Your task to perform on an android device: toggle translation in the chrome app Image 0: 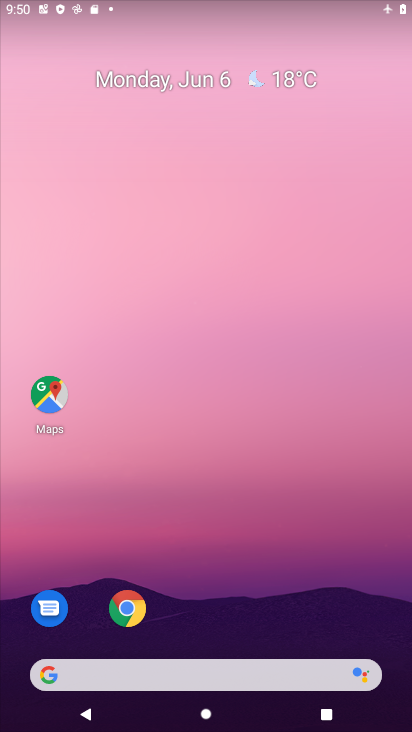
Step 0: click (129, 610)
Your task to perform on an android device: toggle translation in the chrome app Image 1: 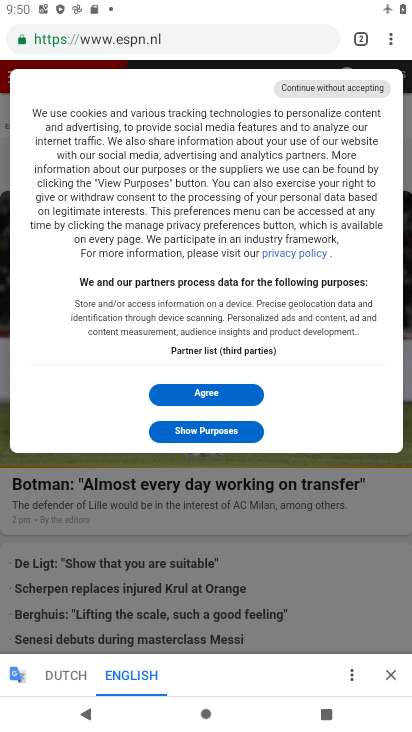
Step 1: click (391, 40)
Your task to perform on an android device: toggle translation in the chrome app Image 2: 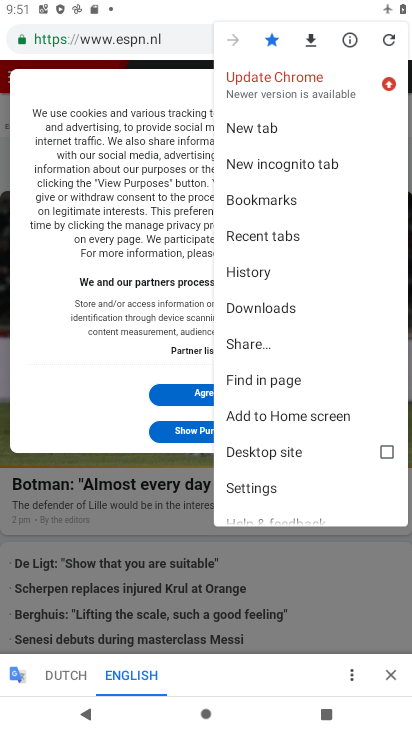
Step 2: click (260, 487)
Your task to perform on an android device: toggle translation in the chrome app Image 3: 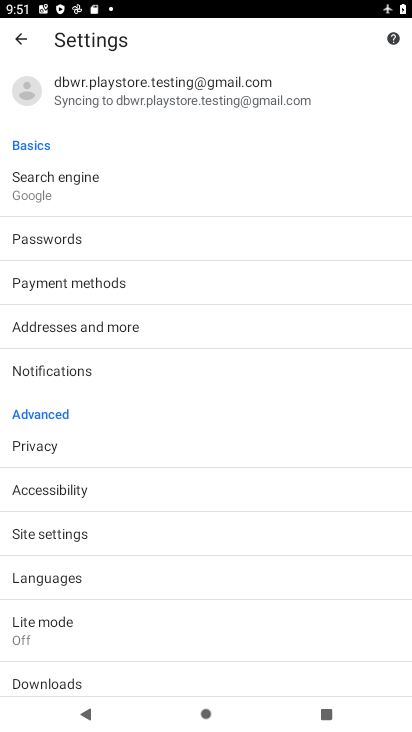
Step 3: click (60, 582)
Your task to perform on an android device: toggle translation in the chrome app Image 4: 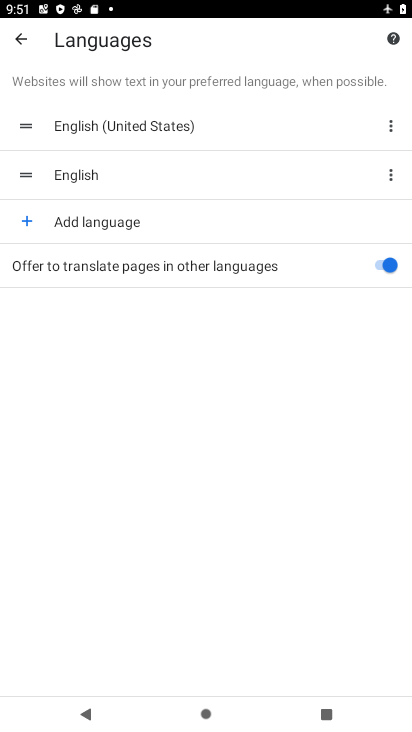
Step 4: click (374, 267)
Your task to perform on an android device: toggle translation in the chrome app Image 5: 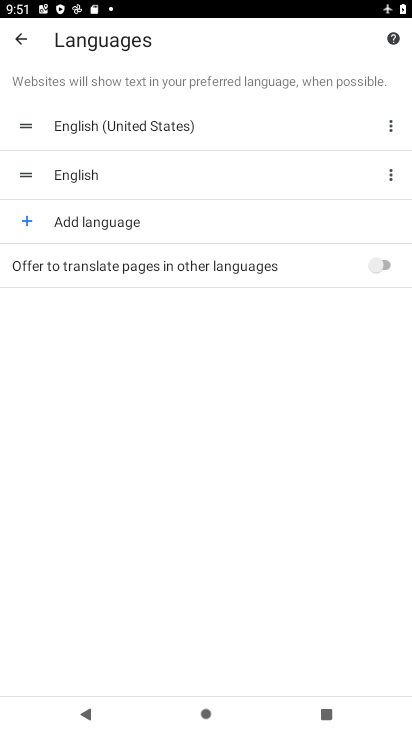
Step 5: task complete